Your task to perform on an android device: Open wifi settings Image 0: 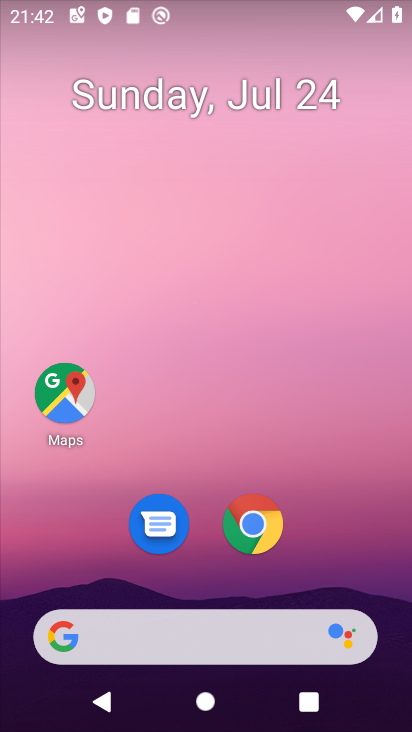
Step 0: press home button
Your task to perform on an android device: Open wifi settings Image 1: 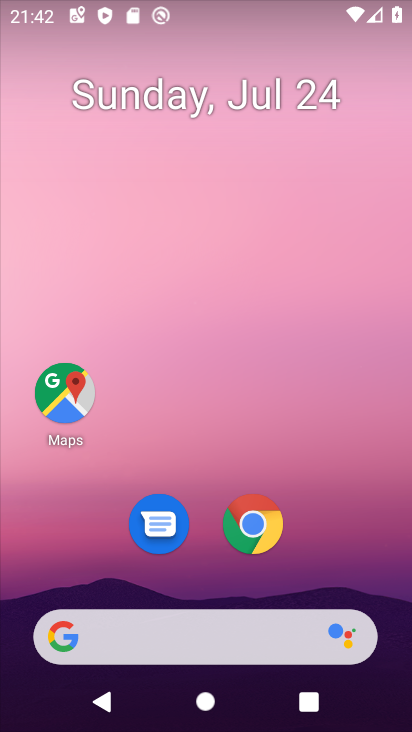
Step 1: drag from (216, 628) to (342, 144)
Your task to perform on an android device: Open wifi settings Image 2: 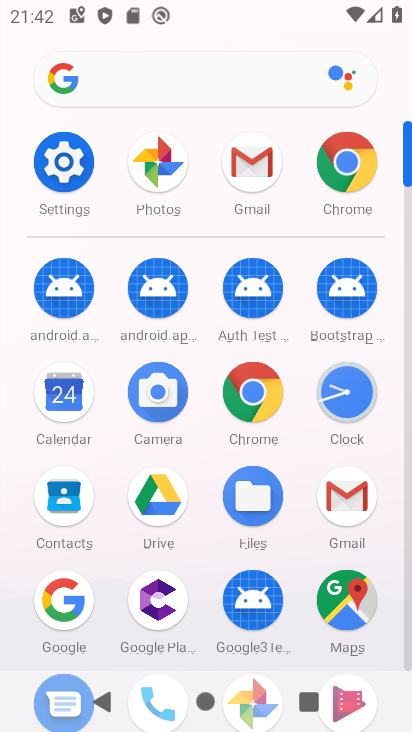
Step 2: click (64, 177)
Your task to perform on an android device: Open wifi settings Image 3: 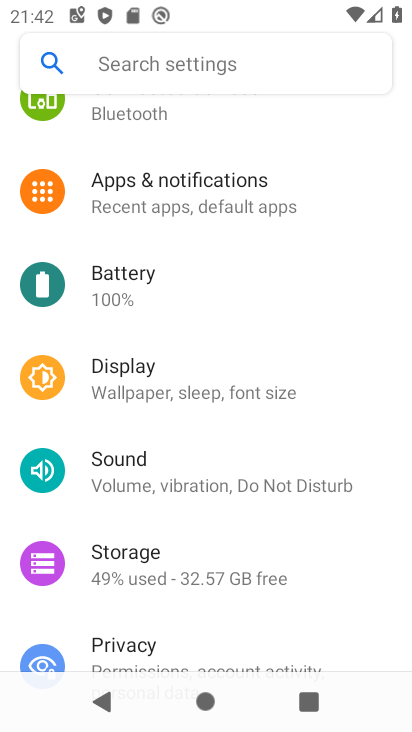
Step 3: drag from (356, 180) to (278, 563)
Your task to perform on an android device: Open wifi settings Image 4: 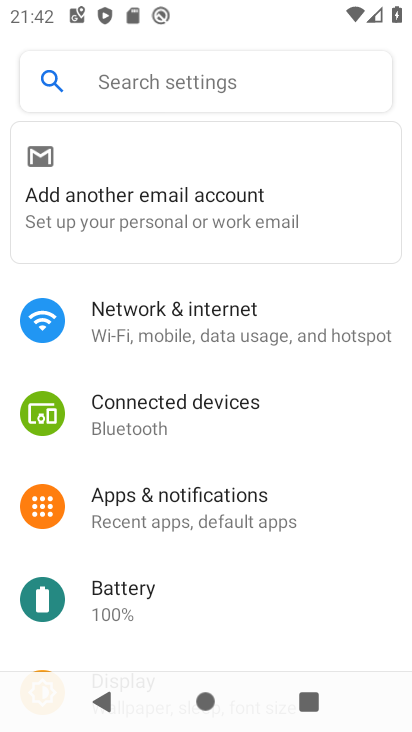
Step 4: click (189, 324)
Your task to perform on an android device: Open wifi settings Image 5: 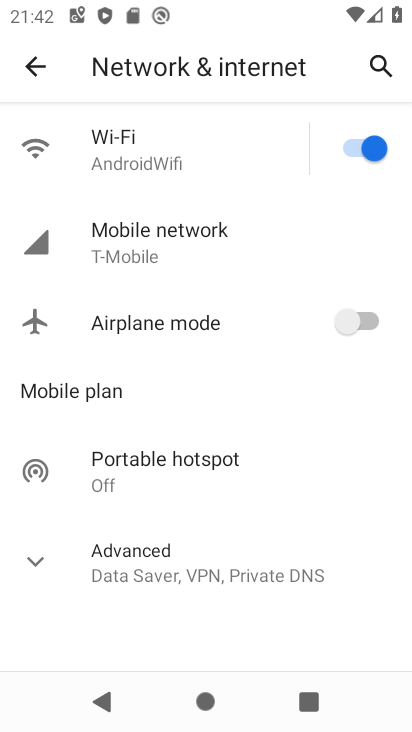
Step 5: click (133, 151)
Your task to perform on an android device: Open wifi settings Image 6: 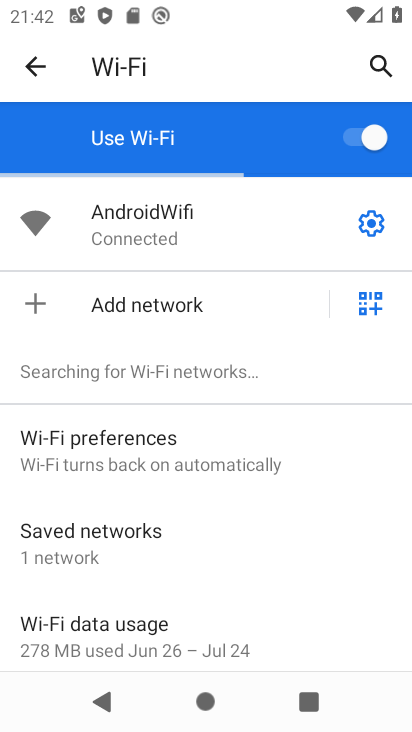
Step 6: task complete